Your task to perform on an android device: check android version Image 0: 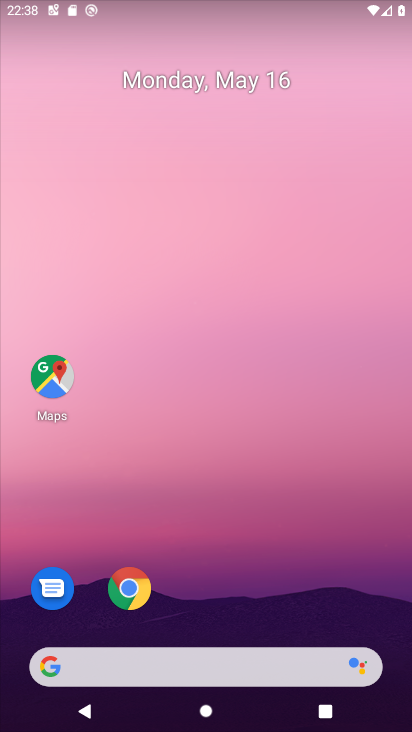
Step 0: drag from (214, 632) to (245, 62)
Your task to perform on an android device: check android version Image 1: 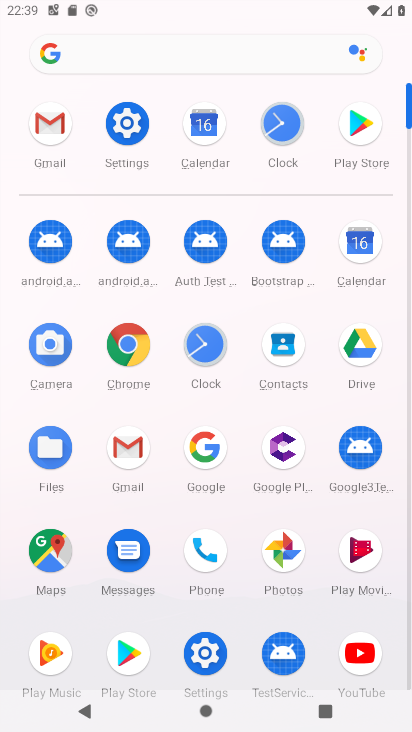
Step 1: click (126, 116)
Your task to perform on an android device: check android version Image 2: 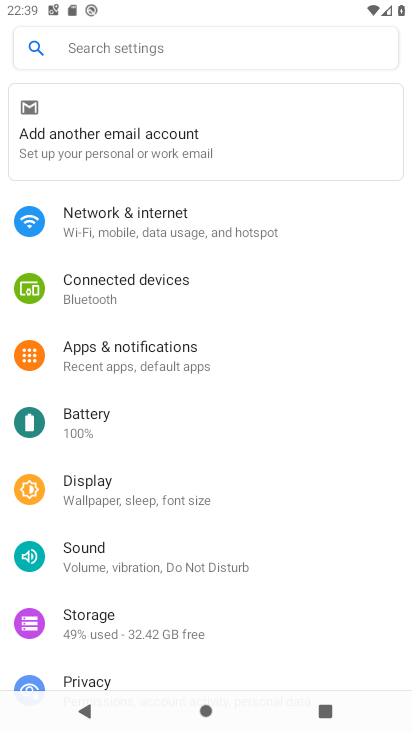
Step 2: drag from (167, 645) to (186, 156)
Your task to perform on an android device: check android version Image 3: 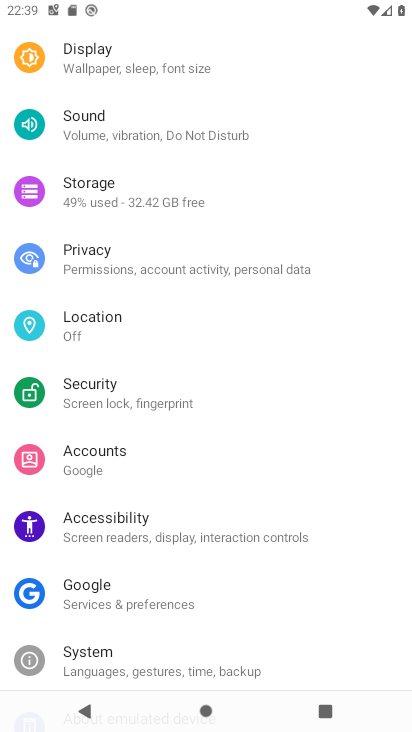
Step 3: drag from (155, 621) to (173, 98)
Your task to perform on an android device: check android version Image 4: 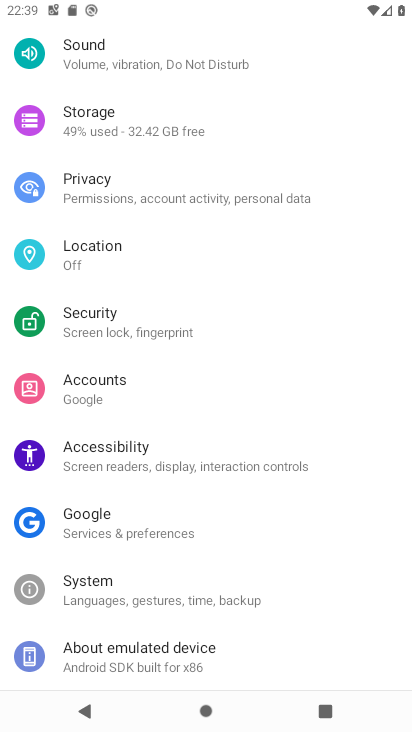
Step 4: click (212, 654)
Your task to perform on an android device: check android version Image 5: 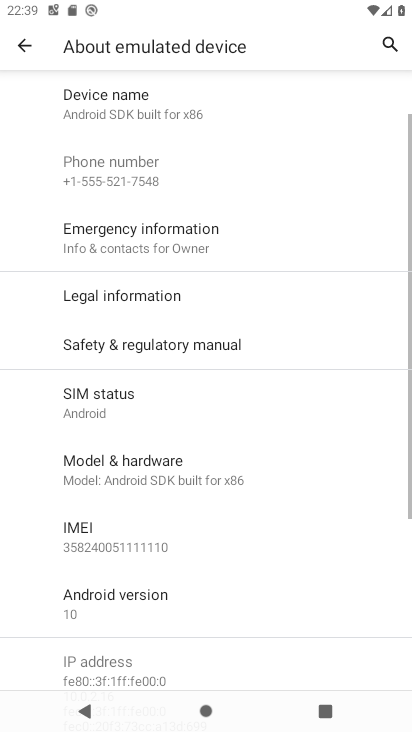
Step 5: click (48, 603)
Your task to perform on an android device: check android version Image 6: 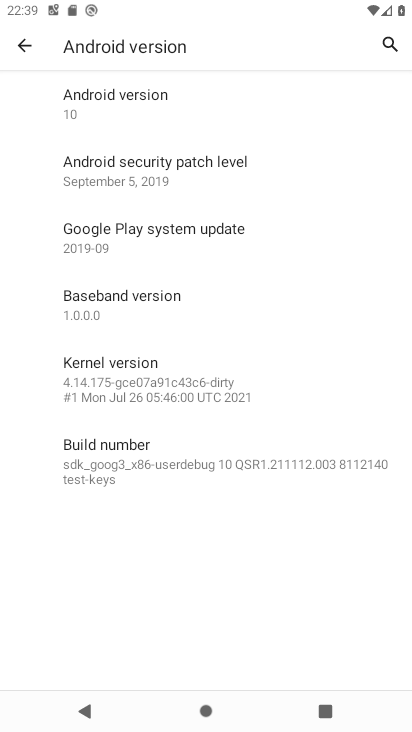
Step 6: task complete